Your task to perform on an android device: change your default location settings in chrome Image 0: 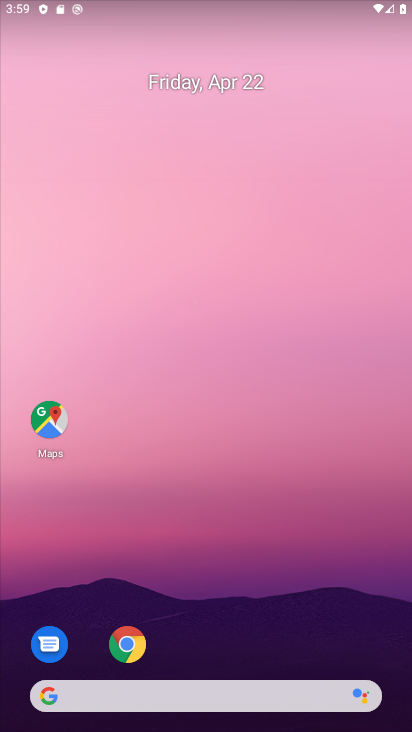
Step 0: drag from (240, 706) to (300, 272)
Your task to perform on an android device: change your default location settings in chrome Image 1: 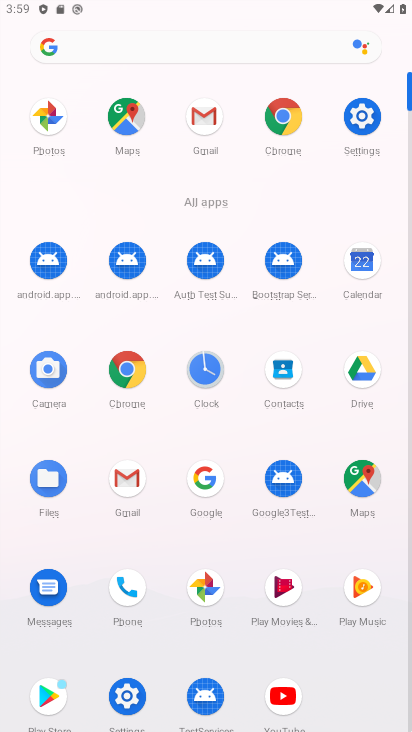
Step 1: drag from (277, 710) to (307, 611)
Your task to perform on an android device: change your default location settings in chrome Image 2: 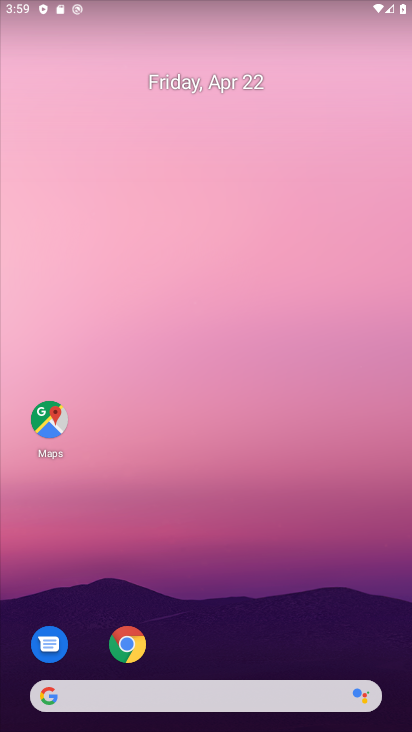
Step 2: drag from (347, 344) to (326, 210)
Your task to perform on an android device: change your default location settings in chrome Image 3: 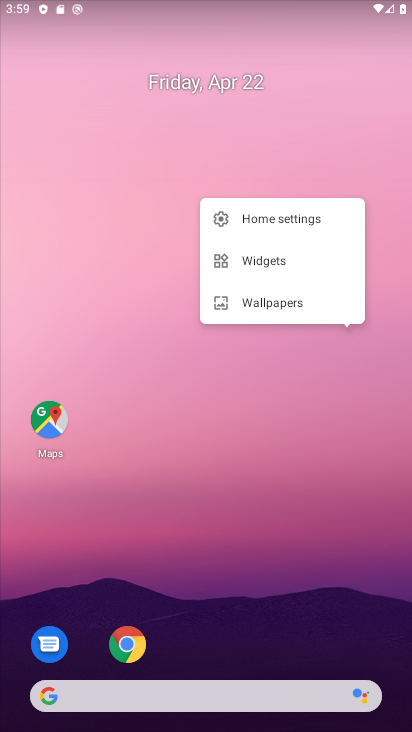
Step 3: drag from (217, 720) to (237, 190)
Your task to perform on an android device: change your default location settings in chrome Image 4: 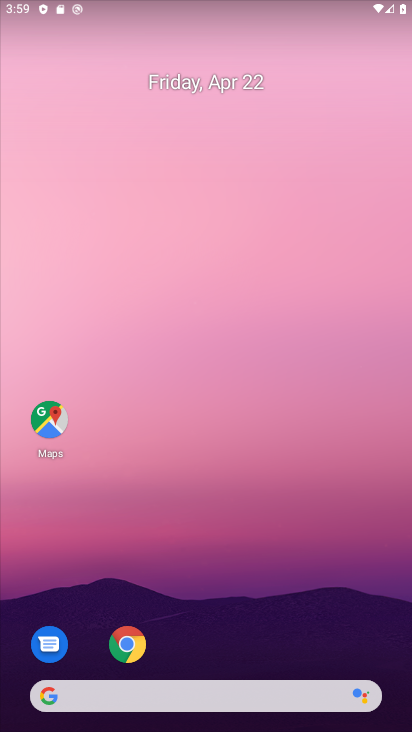
Step 4: drag from (175, 709) to (281, 220)
Your task to perform on an android device: change your default location settings in chrome Image 5: 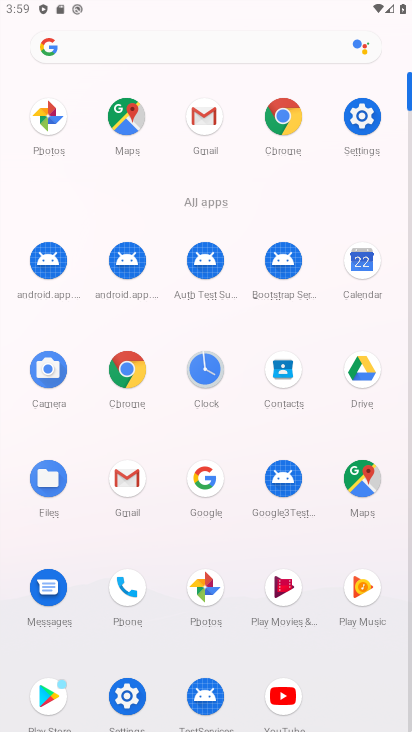
Step 5: click (292, 101)
Your task to perform on an android device: change your default location settings in chrome Image 6: 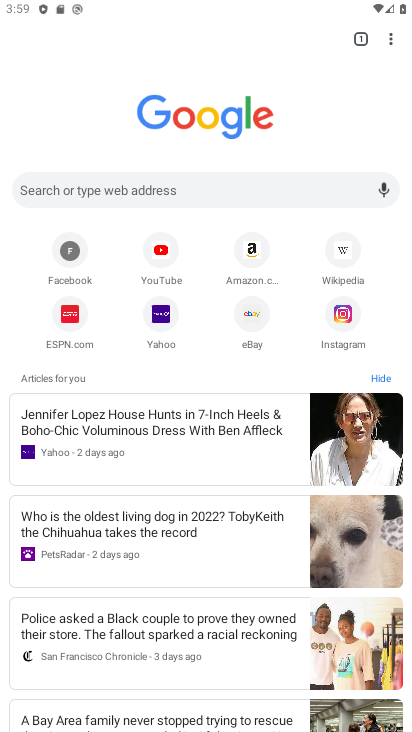
Step 6: click (394, 42)
Your task to perform on an android device: change your default location settings in chrome Image 7: 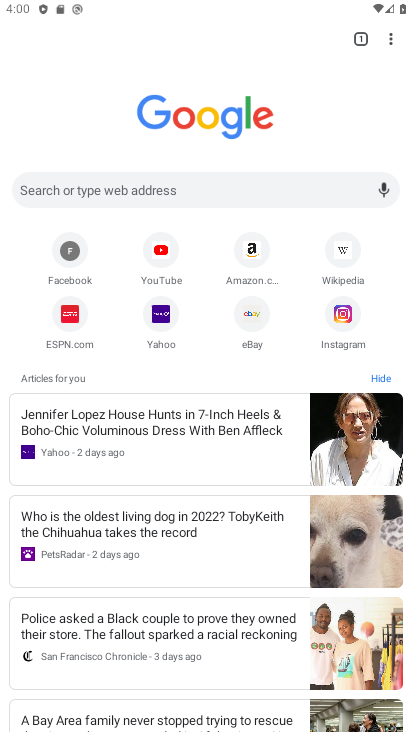
Step 7: click (386, 47)
Your task to perform on an android device: change your default location settings in chrome Image 8: 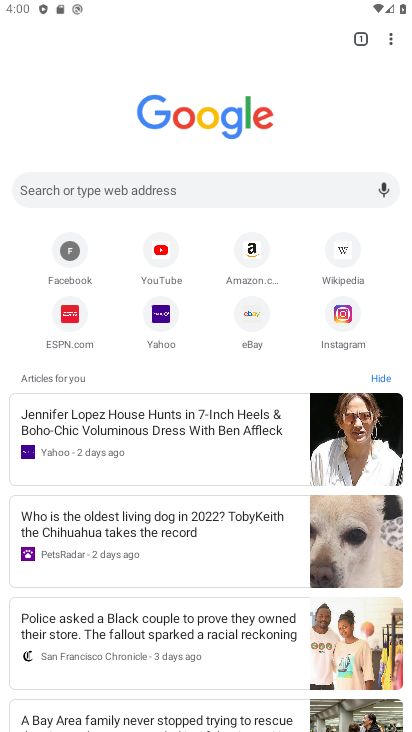
Step 8: click (384, 45)
Your task to perform on an android device: change your default location settings in chrome Image 9: 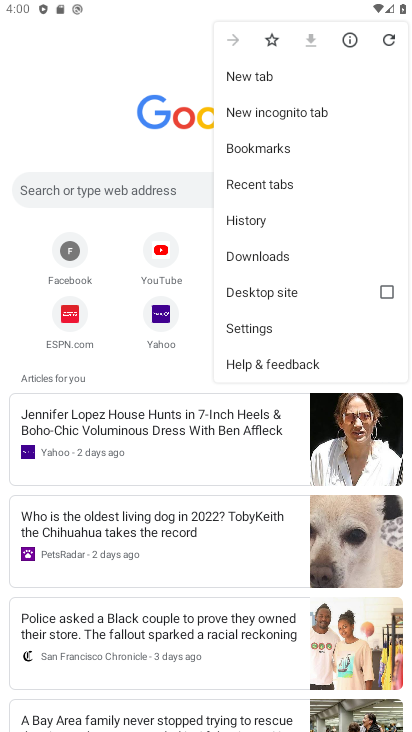
Step 9: click (248, 331)
Your task to perform on an android device: change your default location settings in chrome Image 10: 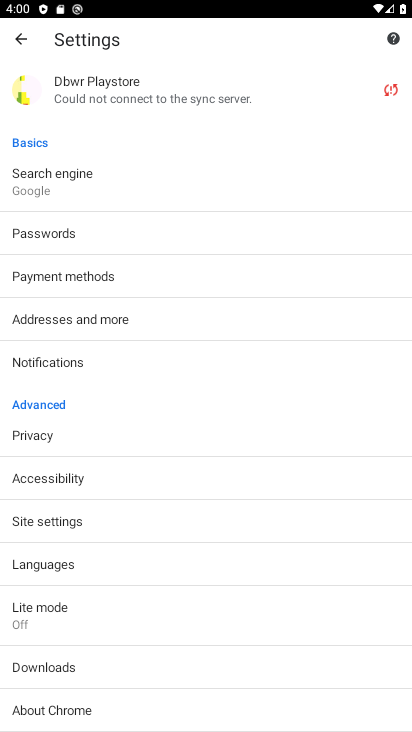
Step 10: click (46, 535)
Your task to perform on an android device: change your default location settings in chrome Image 11: 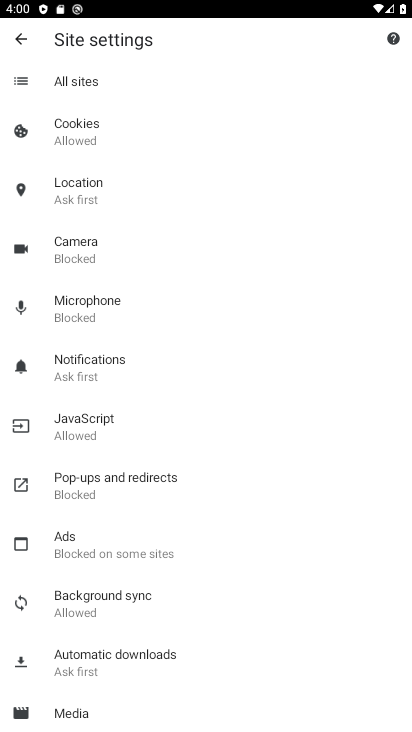
Step 11: click (98, 198)
Your task to perform on an android device: change your default location settings in chrome Image 12: 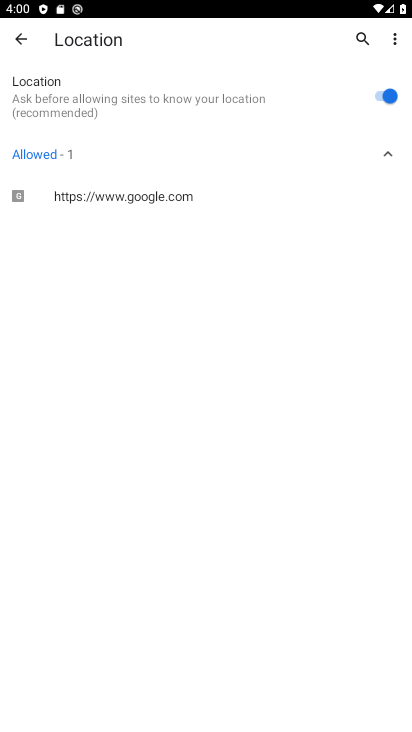
Step 12: task complete